Your task to perform on an android device: Open Google Chrome Image 0: 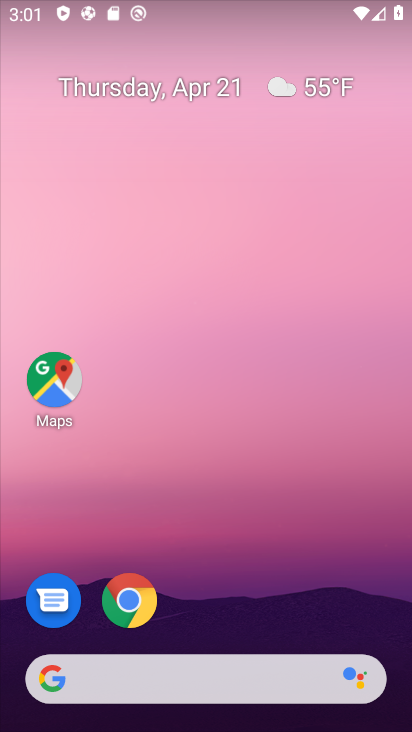
Step 0: drag from (190, 682) to (316, 79)
Your task to perform on an android device: Open Google Chrome Image 1: 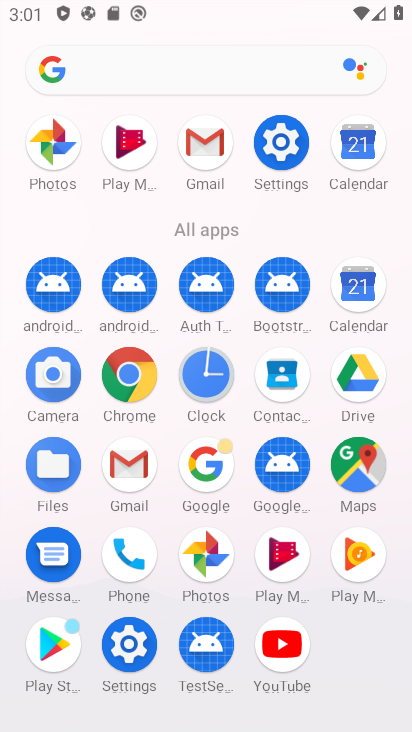
Step 1: click (135, 378)
Your task to perform on an android device: Open Google Chrome Image 2: 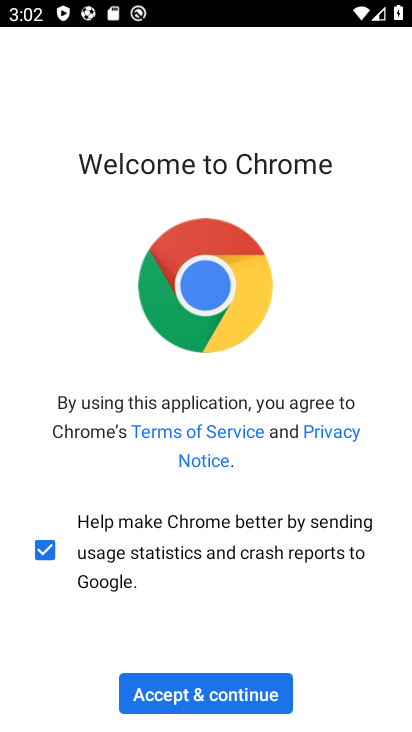
Step 2: click (172, 695)
Your task to perform on an android device: Open Google Chrome Image 3: 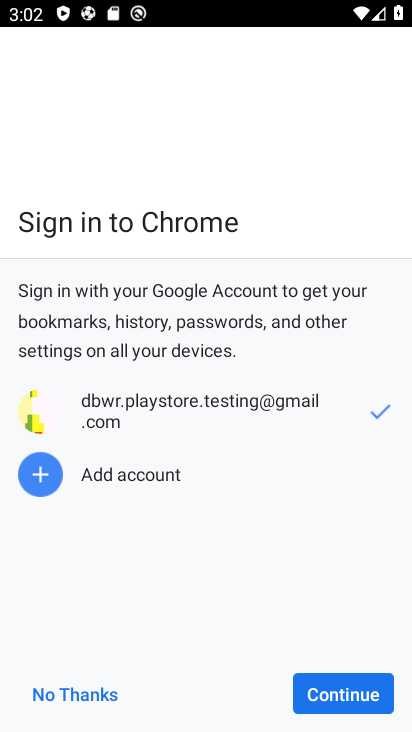
Step 3: click (347, 689)
Your task to perform on an android device: Open Google Chrome Image 4: 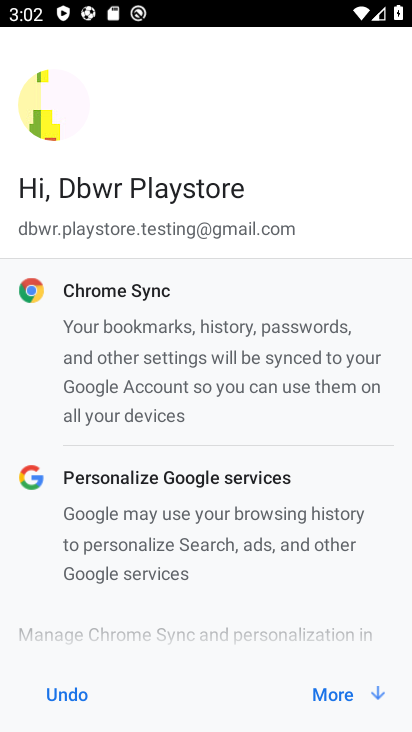
Step 4: click (347, 689)
Your task to perform on an android device: Open Google Chrome Image 5: 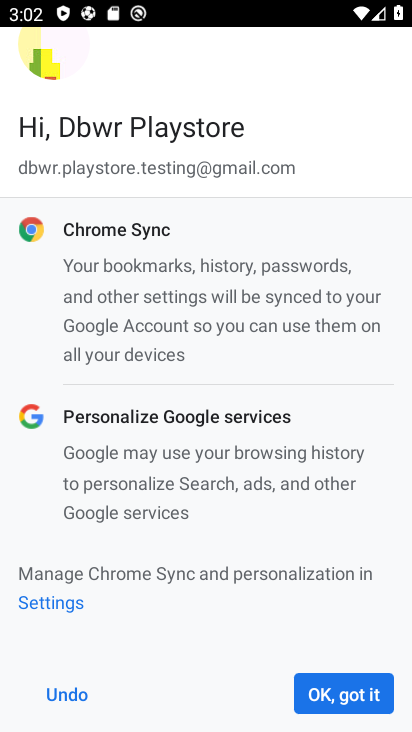
Step 5: click (347, 689)
Your task to perform on an android device: Open Google Chrome Image 6: 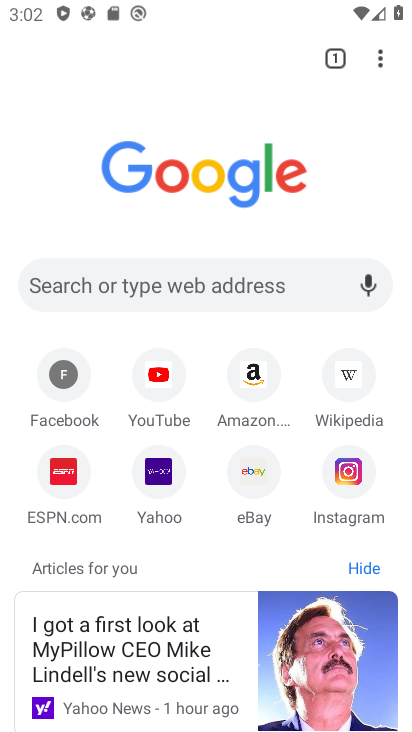
Step 6: task complete